Your task to perform on an android device: set an alarm Image 0: 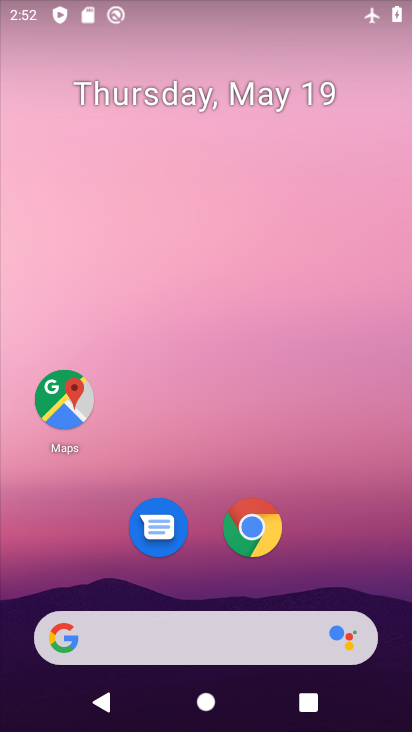
Step 0: drag from (243, 426) to (276, 108)
Your task to perform on an android device: set an alarm Image 1: 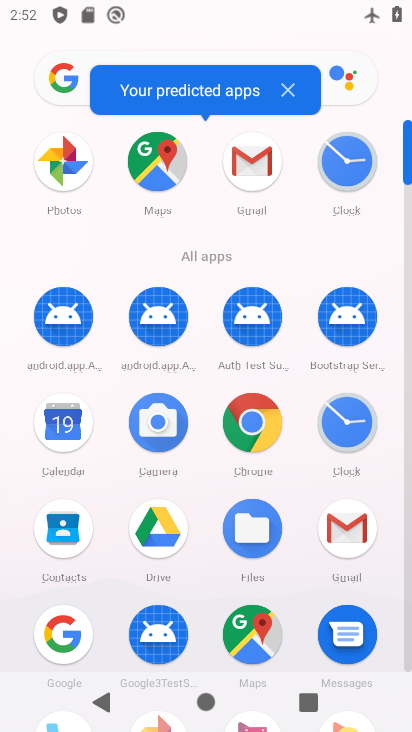
Step 1: click (318, 429)
Your task to perform on an android device: set an alarm Image 2: 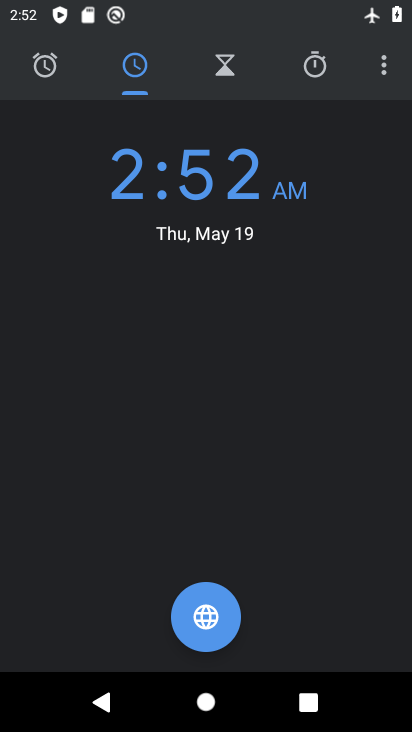
Step 2: click (322, 61)
Your task to perform on an android device: set an alarm Image 3: 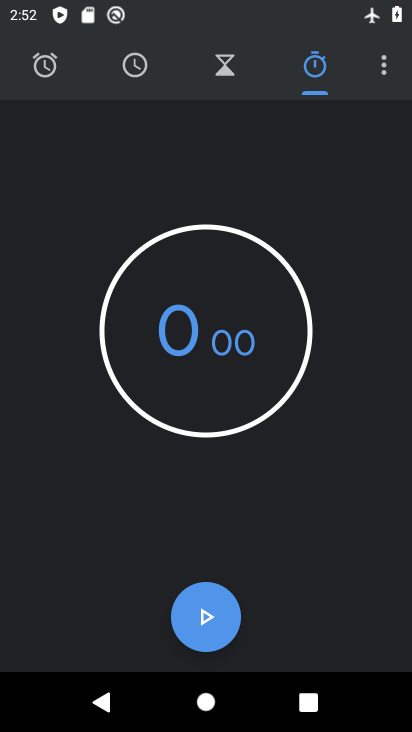
Step 3: click (52, 53)
Your task to perform on an android device: set an alarm Image 4: 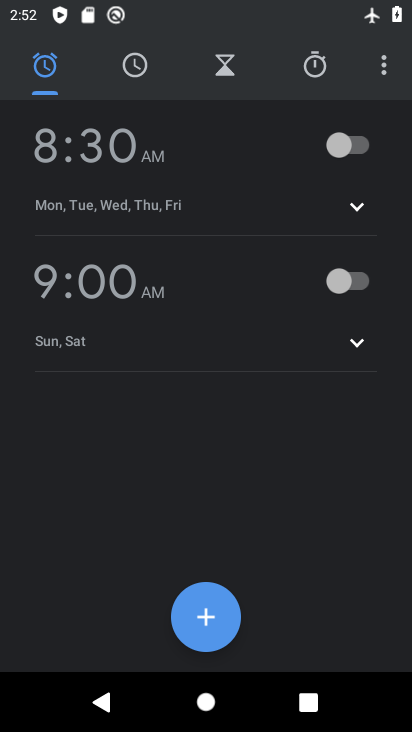
Step 4: click (366, 137)
Your task to perform on an android device: set an alarm Image 5: 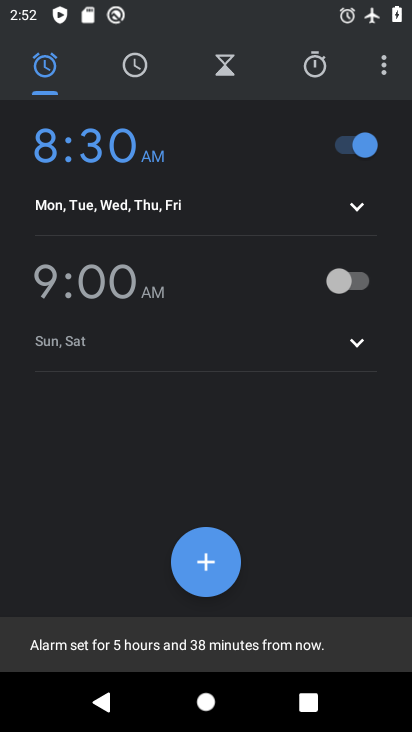
Step 5: task complete